Your task to perform on an android device: open the mobile data screen to see how much data has been used Image 0: 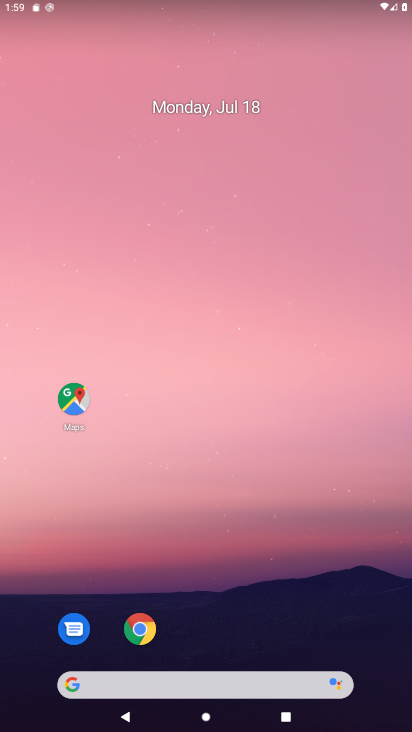
Step 0: drag from (201, 638) to (133, 158)
Your task to perform on an android device: open the mobile data screen to see how much data has been used Image 1: 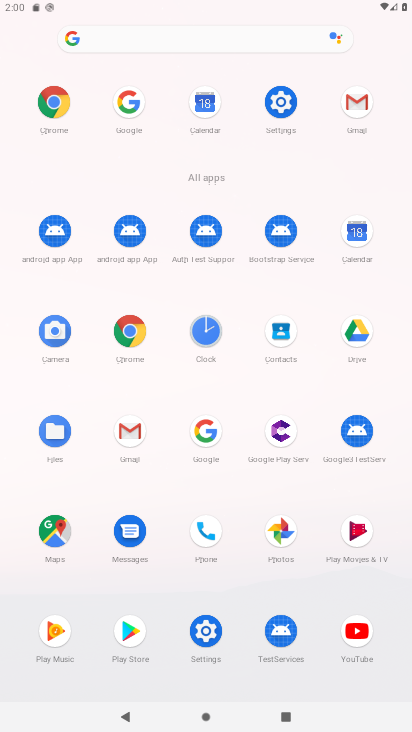
Step 1: click (280, 101)
Your task to perform on an android device: open the mobile data screen to see how much data has been used Image 2: 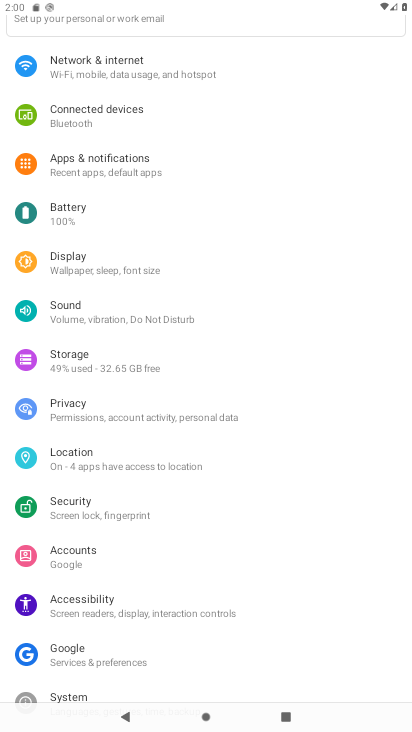
Step 2: click (178, 81)
Your task to perform on an android device: open the mobile data screen to see how much data has been used Image 3: 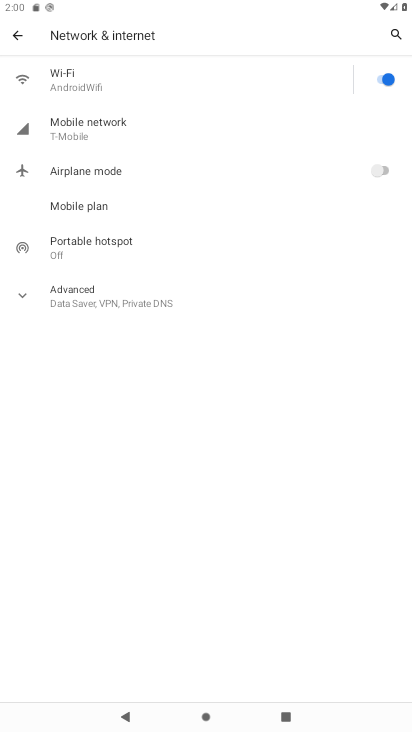
Step 3: click (105, 127)
Your task to perform on an android device: open the mobile data screen to see how much data has been used Image 4: 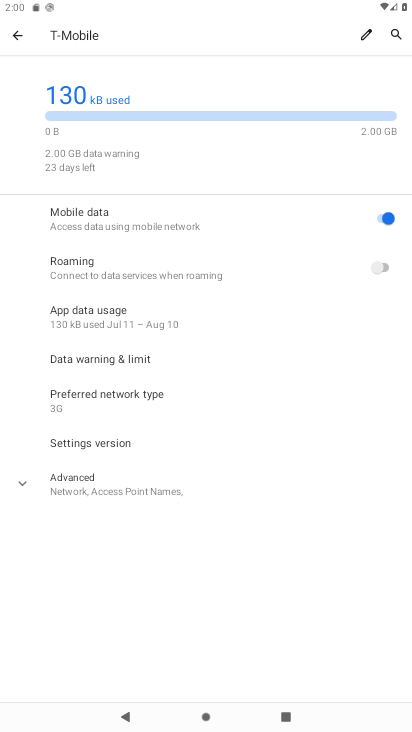
Step 4: task complete